Your task to perform on an android device: check battery use Image 0: 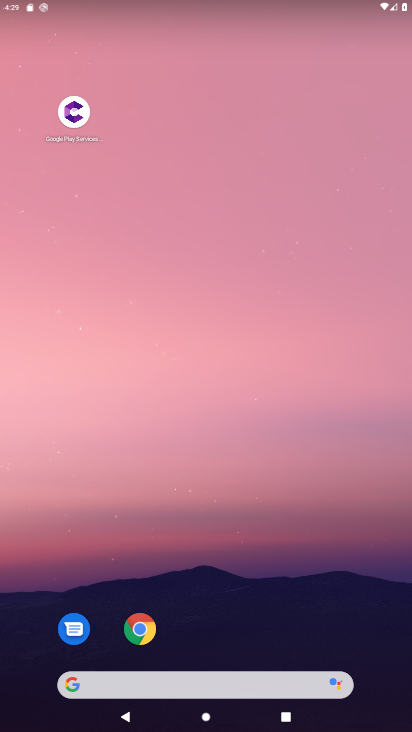
Step 0: drag from (244, 590) to (167, 214)
Your task to perform on an android device: check battery use Image 1: 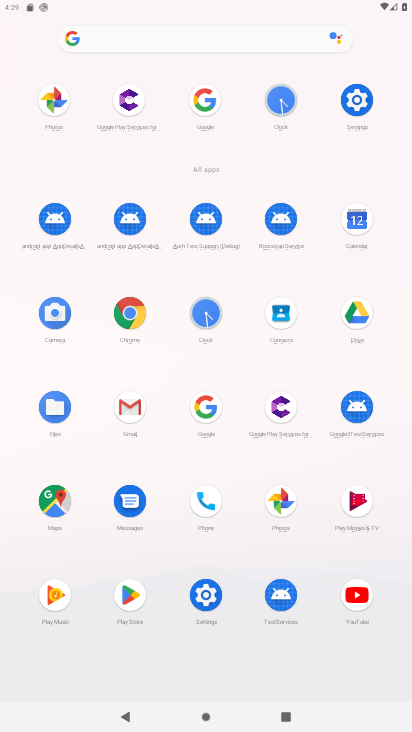
Step 1: click (347, 91)
Your task to perform on an android device: check battery use Image 2: 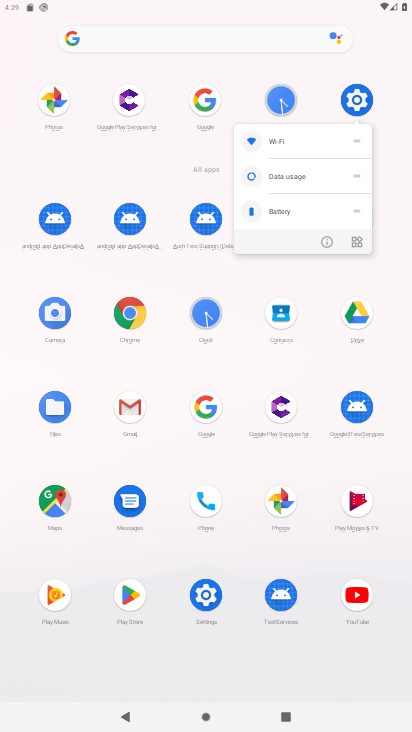
Step 2: click (347, 97)
Your task to perform on an android device: check battery use Image 3: 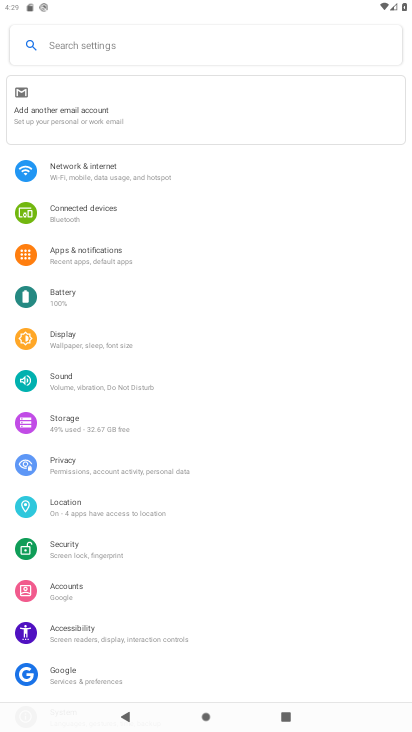
Step 3: click (71, 297)
Your task to perform on an android device: check battery use Image 4: 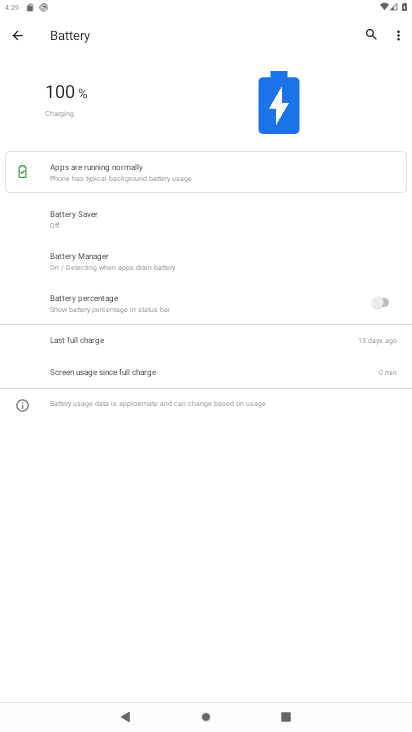
Step 4: task complete